Your task to perform on an android device: delete the emails in spam in the gmail app Image 0: 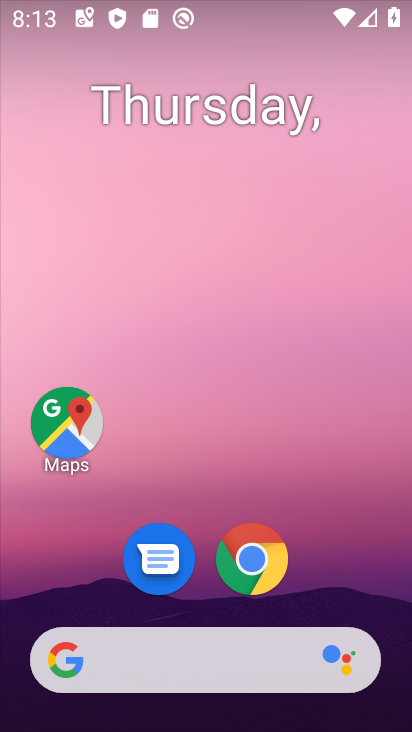
Step 0: drag from (206, 608) to (138, 83)
Your task to perform on an android device: delete the emails in spam in the gmail app Image 1: 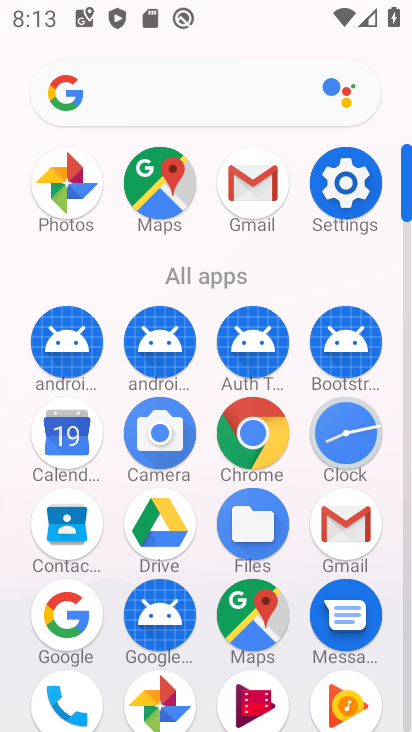
Step 1: click (342, 537)
Your task to perform on an android device: delete the emails in spam in the gmail app Image 2: 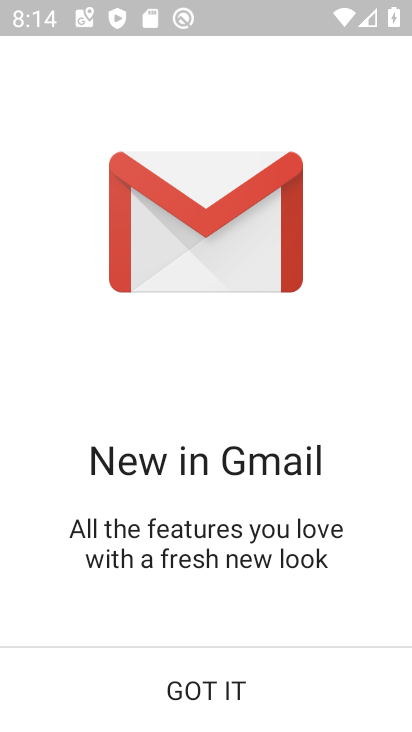
Step 2: click (192, 668)
Your task to perform on an android device: delete the emails in spam in the gmail app Image 3: 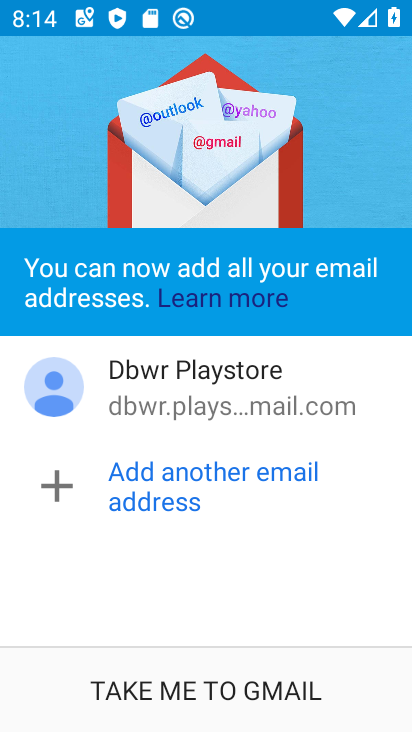
Step 3: click (220, 692)
Your task to perform on an android device: delete the emails in spam in the gmail app Image 4: 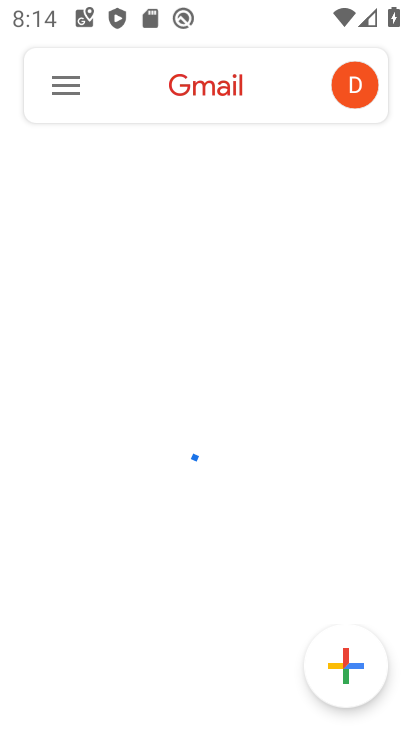
Step 4: click (50, 90)
Your task to perform on an android device: delete the emails in spam in the gmail app Image 5: 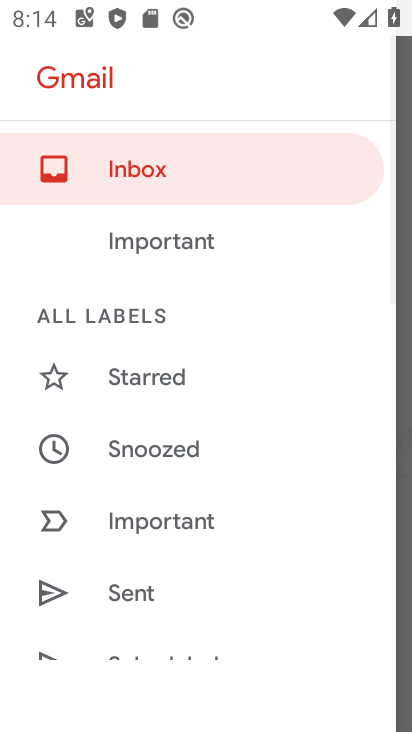
Step 5: drag from (183, 532) to (209, 184)
Your task to perform on an android device: delete the emails in spam in the gmail app Image 6: 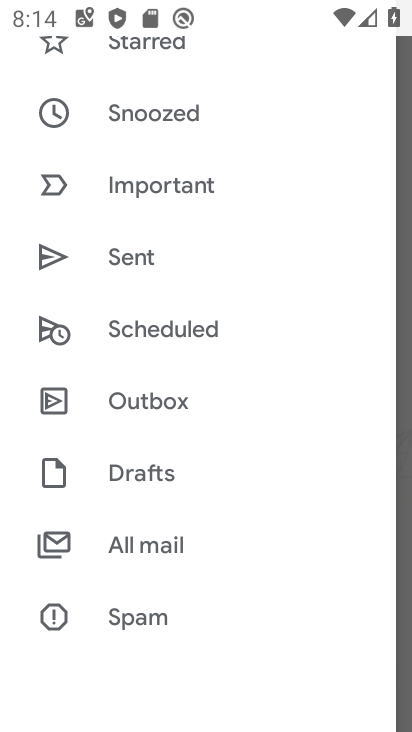
Step 6: click (133, 617)
Your task to perform on an android device: delete the emails in spam in the gmail app Image 7: 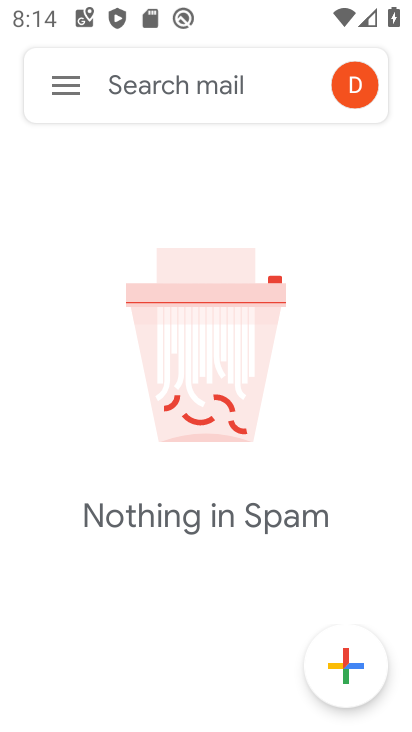
Step 7: task complete